Your task to perform on an android device: turn off notifications in google photos Image 0: 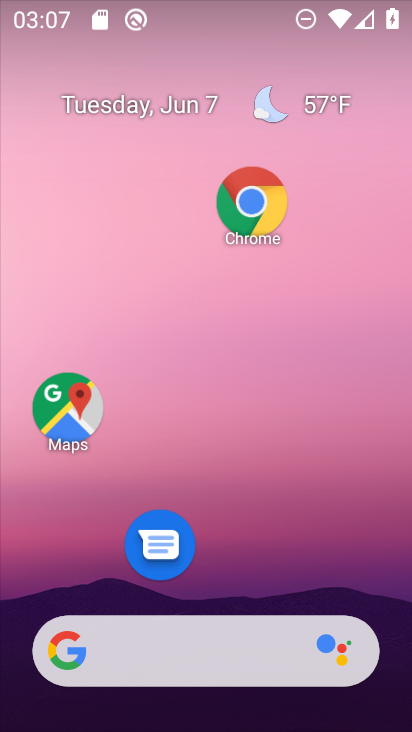
Step 0: drag from (284, 574) to (259, 246)
Your task to perform on an android device: turn off notifications in google photos Image 1: 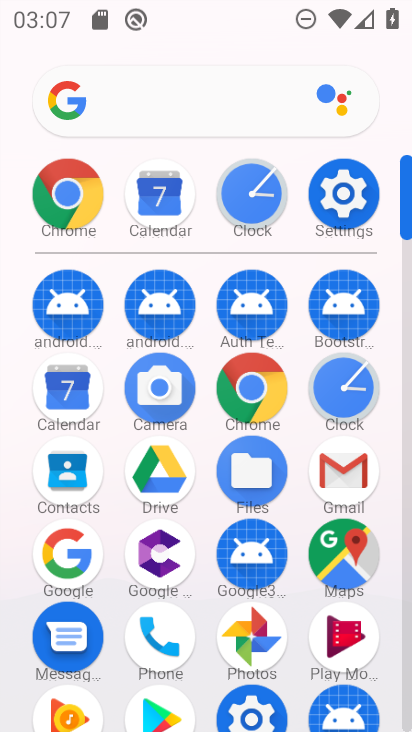
Step 1: click (255, 623)
Your task to perform on an android device: turn off notifications in google photos Image 2: 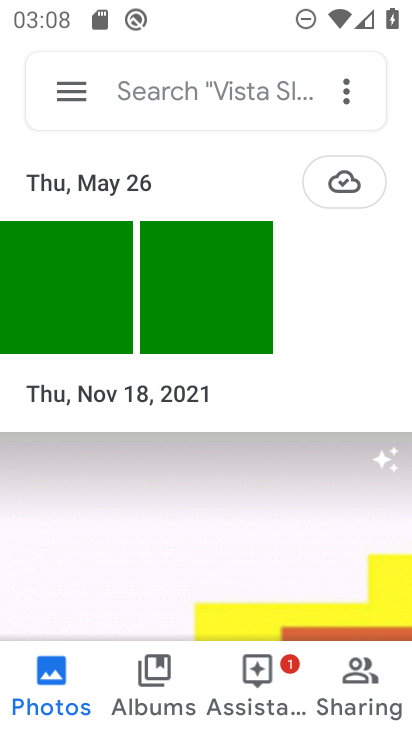
Step 2: click (74, 78)
Your task to perform on an android device: turn off notifications in google photos Image 3: 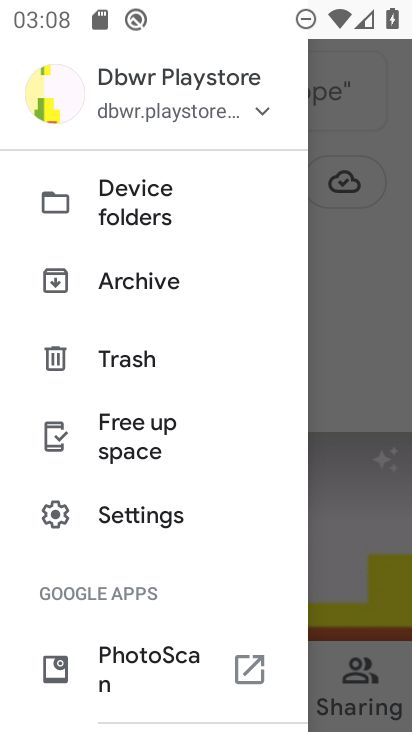
Step 3: click (157, 515)
Your task to perform on an android device: turn off notifications in google photos Image 4: 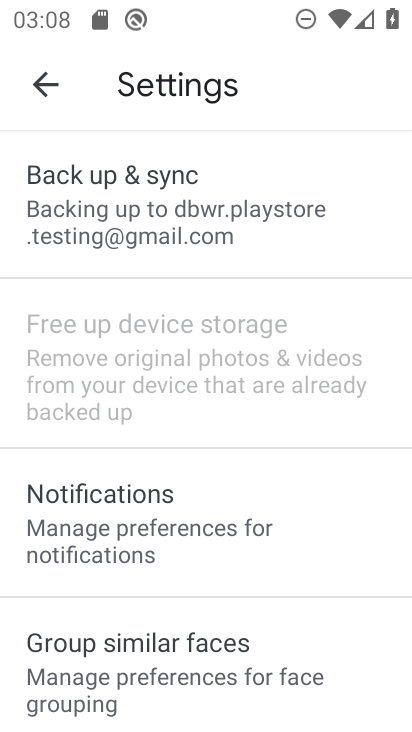
Step 4: click (149, 514)
Your task to perform on an android device: turn off notifications in google photos Image 5: 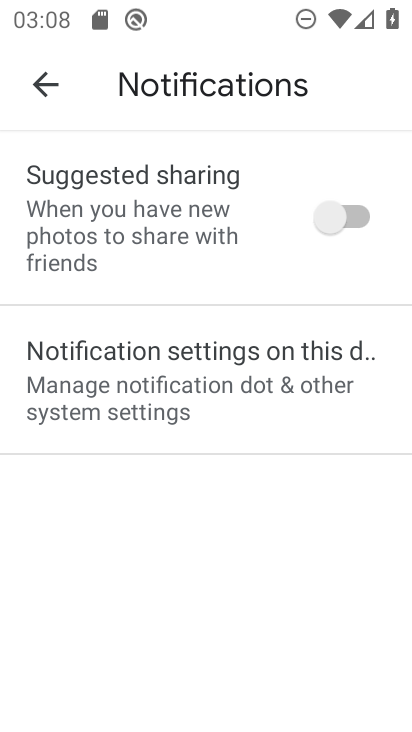
Step 5: click (207, 359)
Your task to perform on an android device: turn off notifications in google photos Image 6: 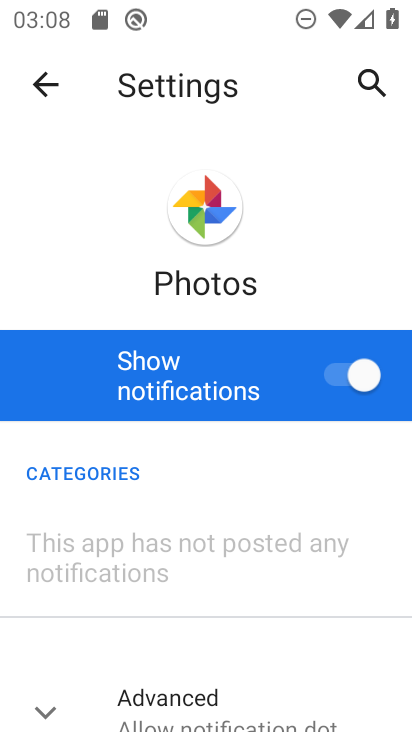
Step 6: click (357, 377)
Your task to perform on an android device: turn off notifications in google photos Image 7: 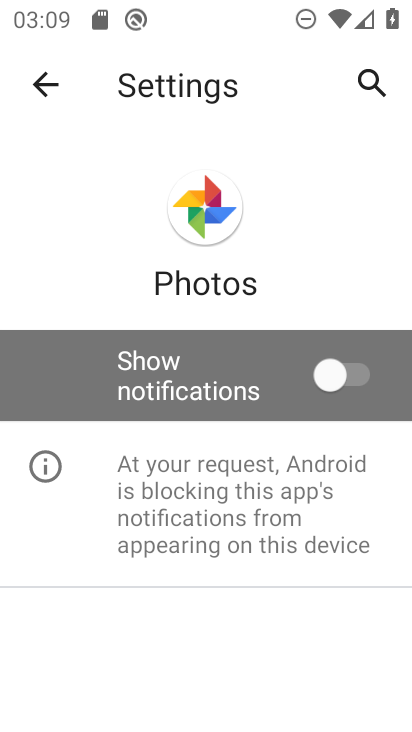
Step 7: task complete